Your task to perform on an android device: manage bookmarks in the chrome app Image 0: 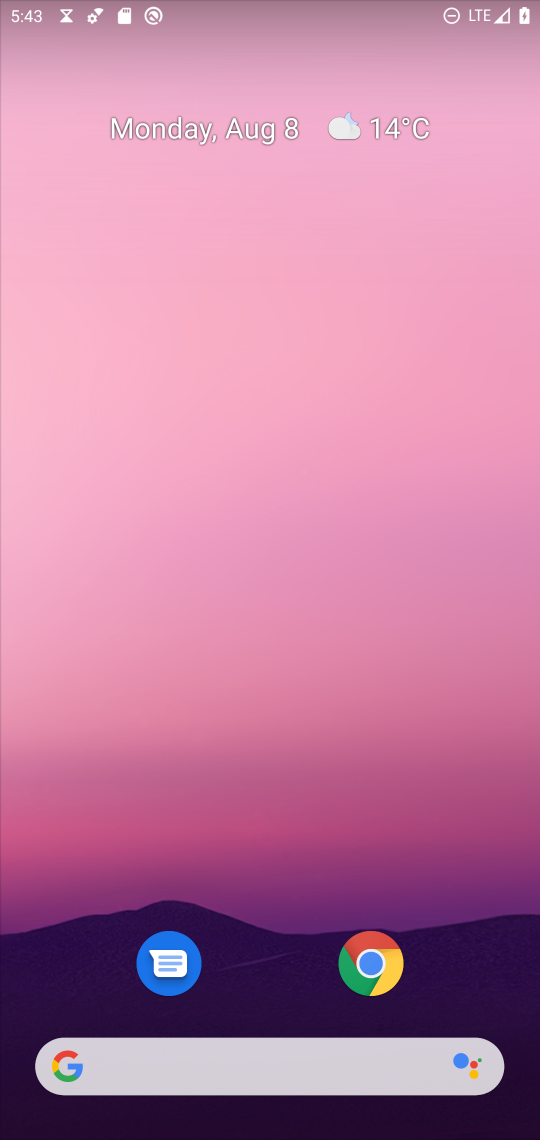
Step 0: click (364, 947)
Your task to perform on an android device: manage bookmarks in the chrome app Image 1: 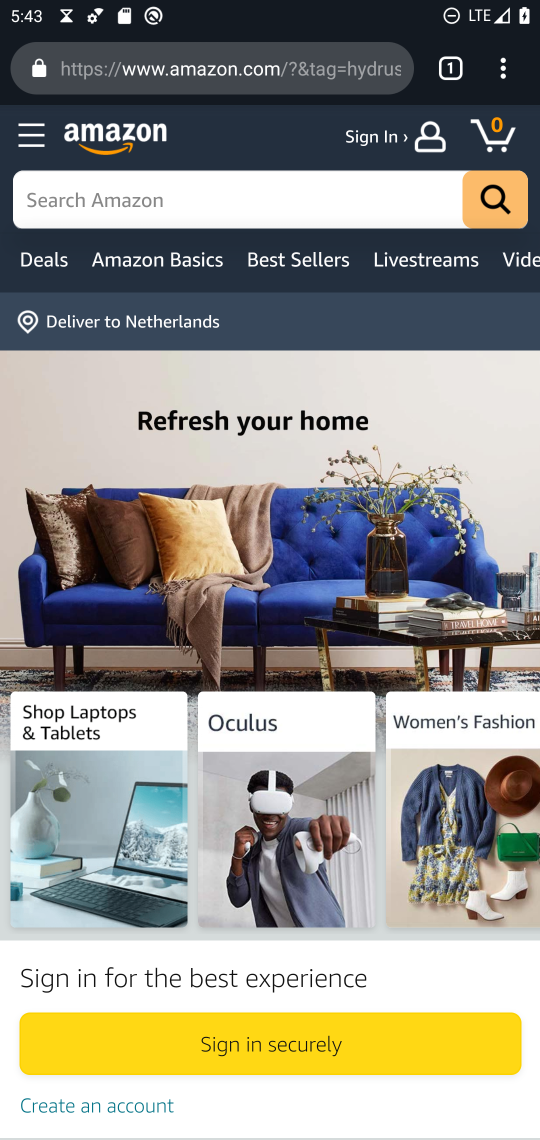
Step 1: click (511, 85)
Your task to perform on an android device: manage bookmarks in the chrome app Image 2: 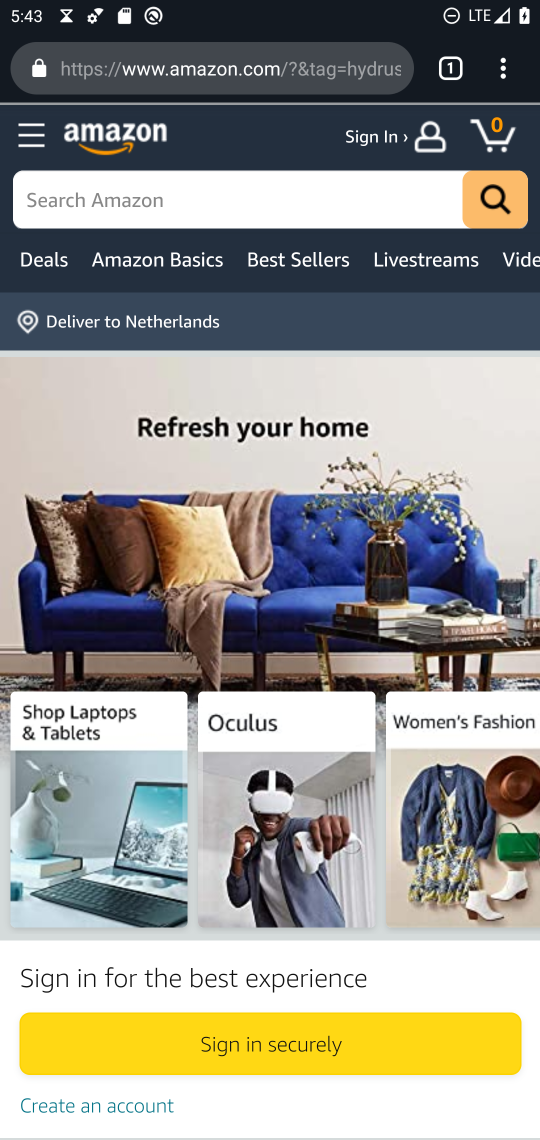
Step 2: click (525, 72)
Your task to perform on an android device: manage bookmarks in the chrome app Image 3: 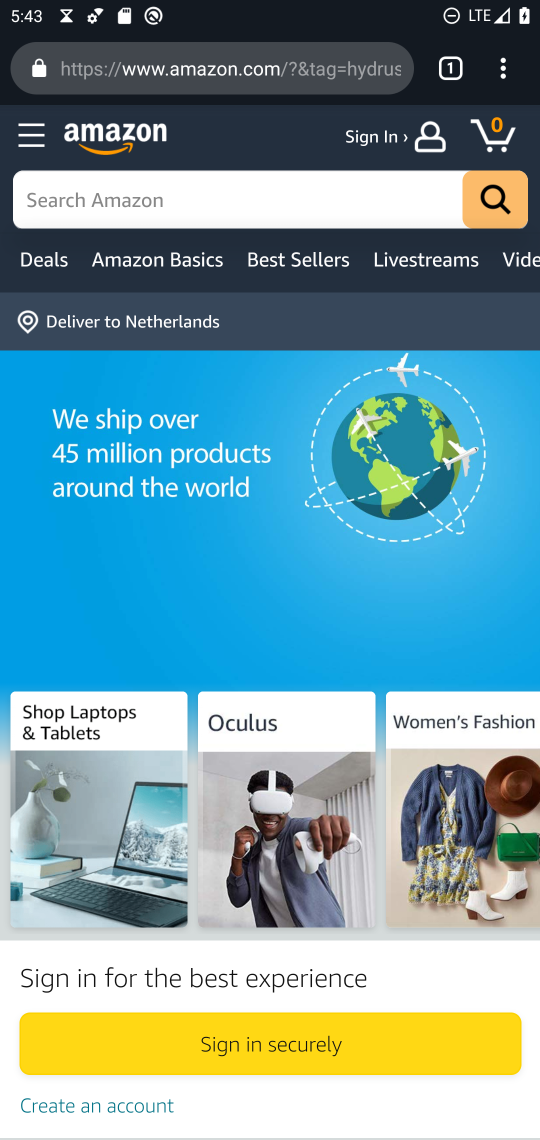
Step 3: click (525, 72)
Your task to perform on an android device: manage bookmarks in the chrome app Image 4: 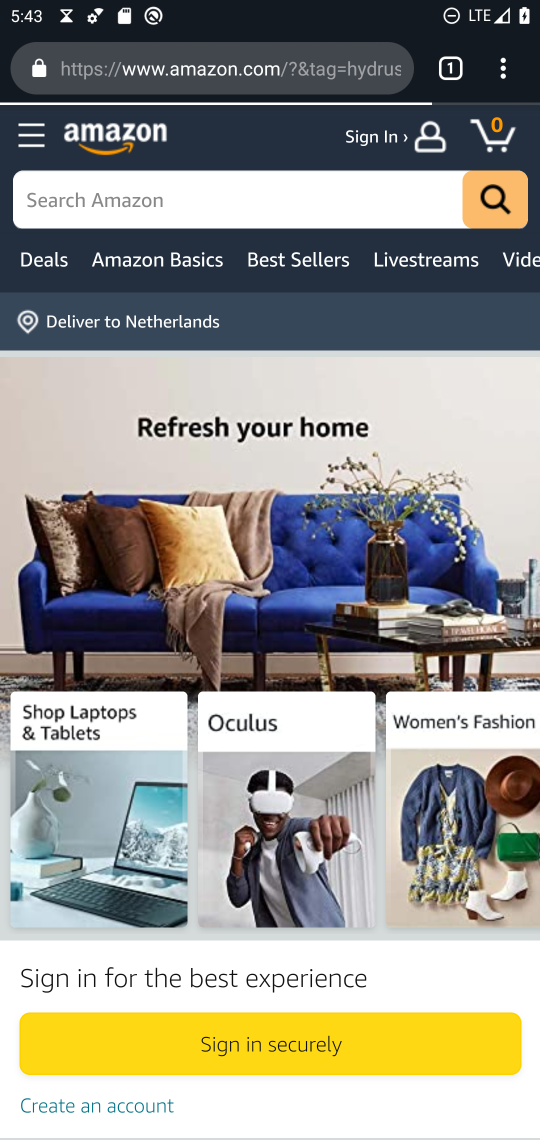
Step 4: click (498, 80)
Your task to perform on an android device: manage bookmarks in the chrome app Image 5: 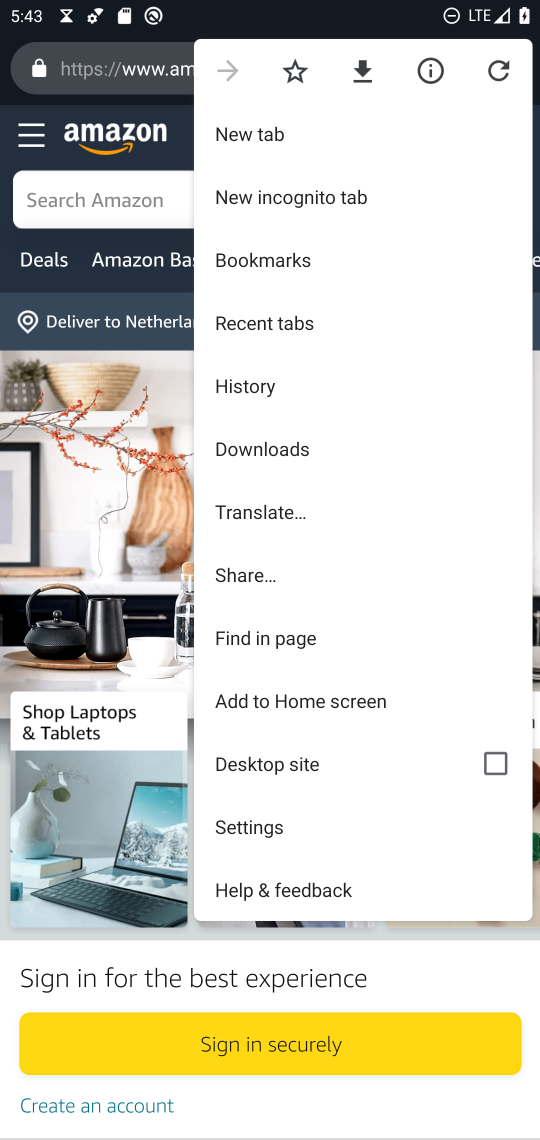
Step 5: click (274, 266)
Your task to perform on an android device: manage bookmarks in the chrome app Image 6: 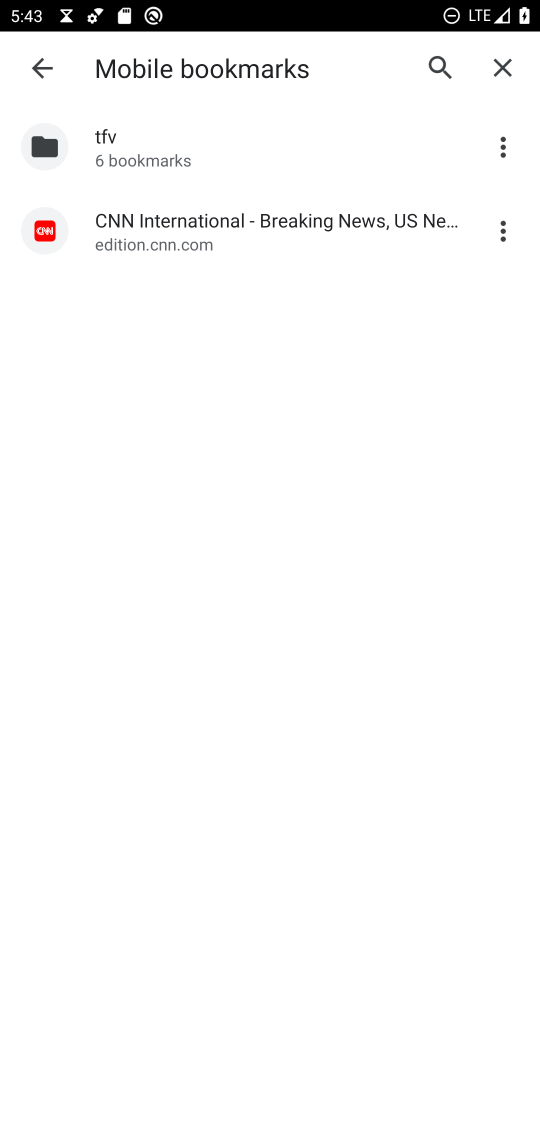
Step 6: click (495, 235)
Your task to perform on an android device: manage bookmarks in the chrome app Image 7: 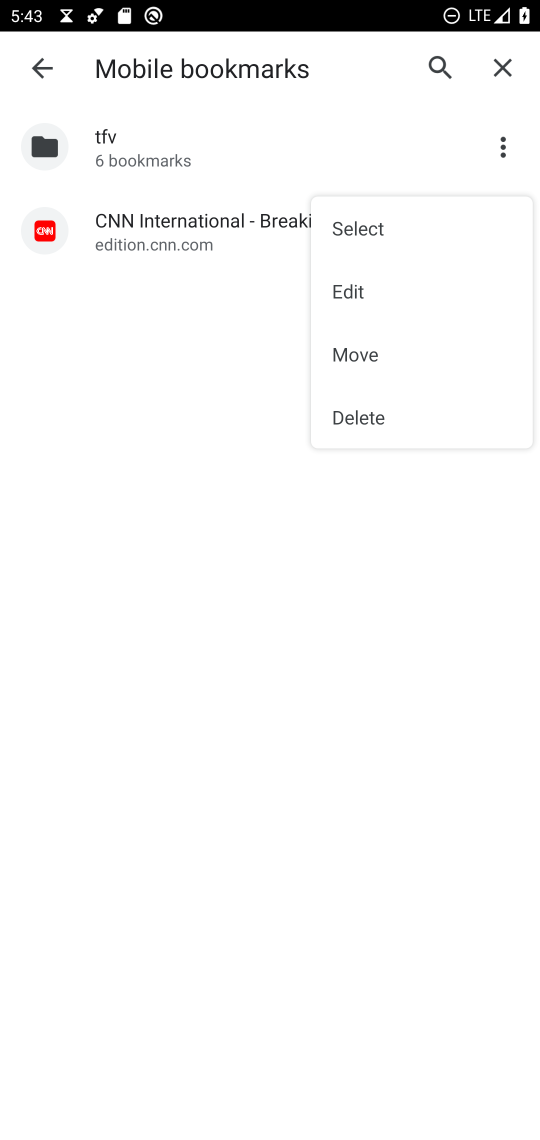
Step 7: click (397, 404)
Your task to perform on an android device: manage bookmarks in the chrome app Image 8: 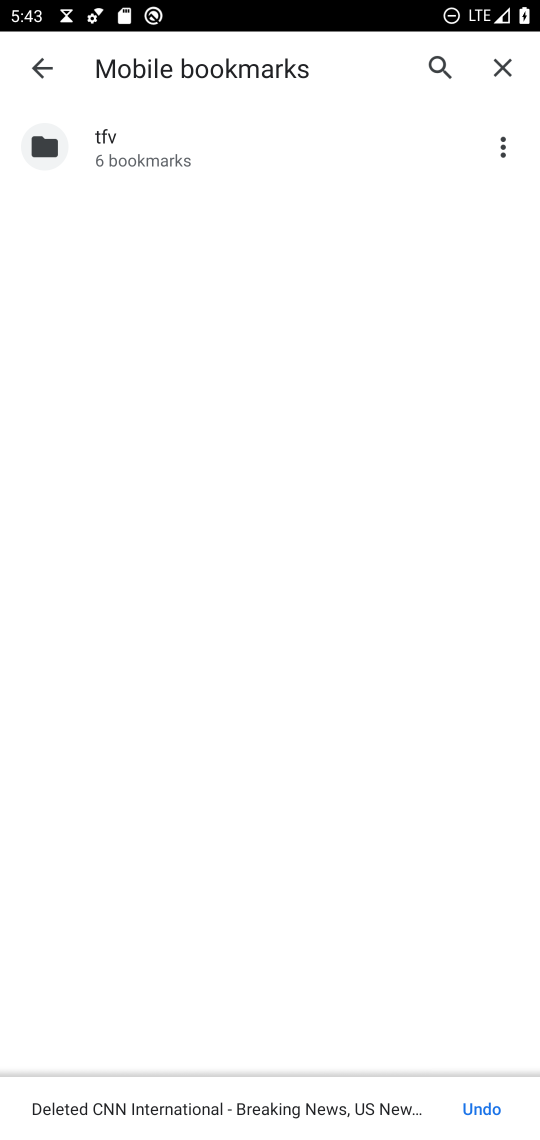
Step 8: task complete